Your task to perform on an android device: change the clock style Image 0: 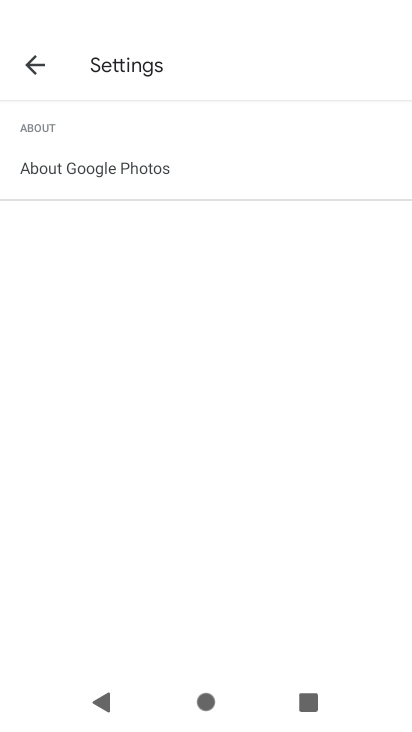
Step 0: press home button
Your task to perform on an android device: change the clock style Image 1: 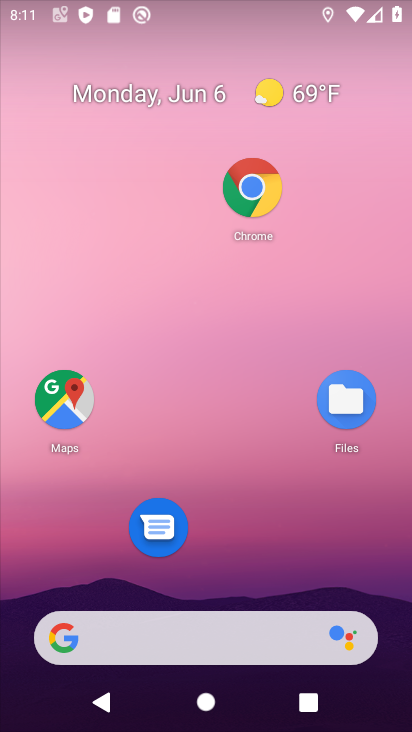
Step 1: drag from (227, 435) to (216, 64)
Your task to perform on an android device: change the clock style Image 2: 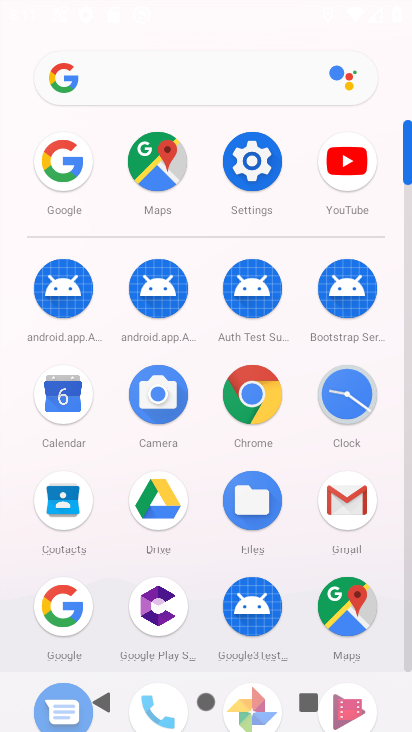
Step 2: click (347, 402)
Your task to perform on an android device: change the clock style Image 3: 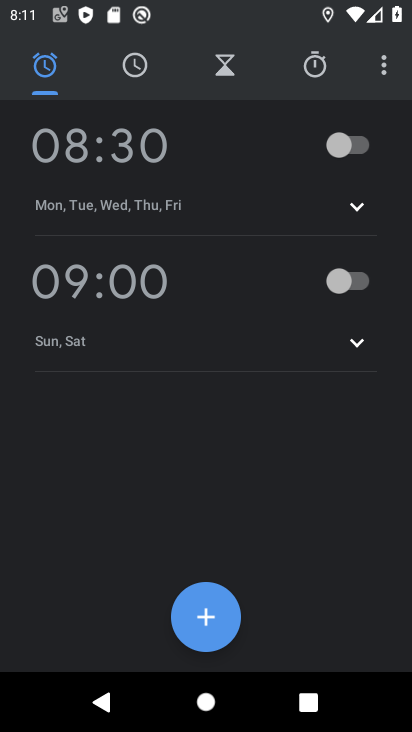
Step 3: click (381, 62)
Your task to perform on an android device: change the clock style Image 4: 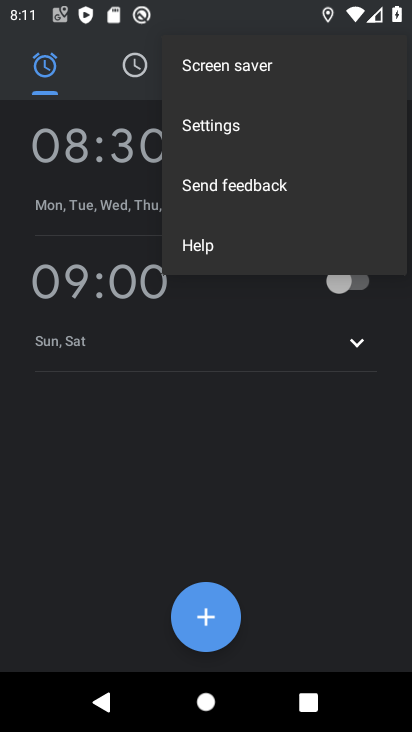
Step 4: click (224, 115)
Your task to perform on an android device: change the clock style Image 5: 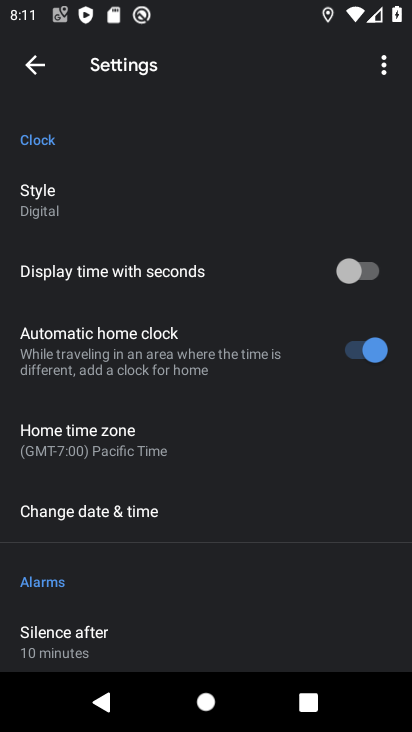
Step 5: click (142, 210)
Your task to perform on an android device: change the clock style Image 6: 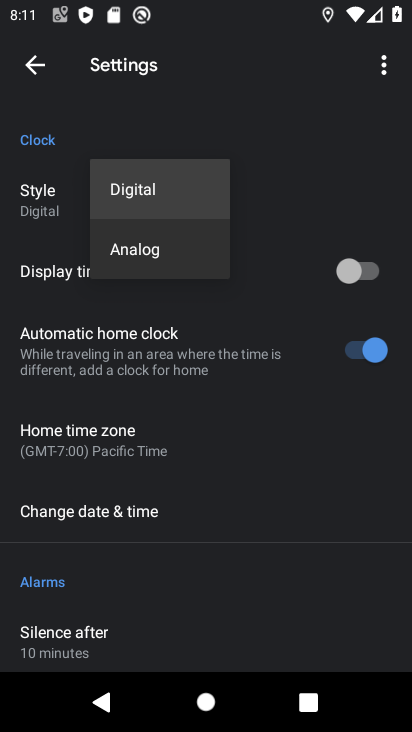
Step 6: click (137, 247)
Your task to perform on an android device: change the clock style Image 7: 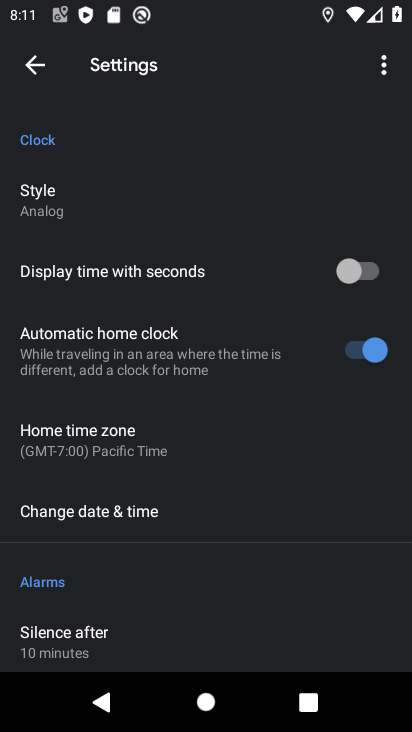
Step 7: task complete